Your task to perform on an android device: open a new tab in the chrome app Image 0: 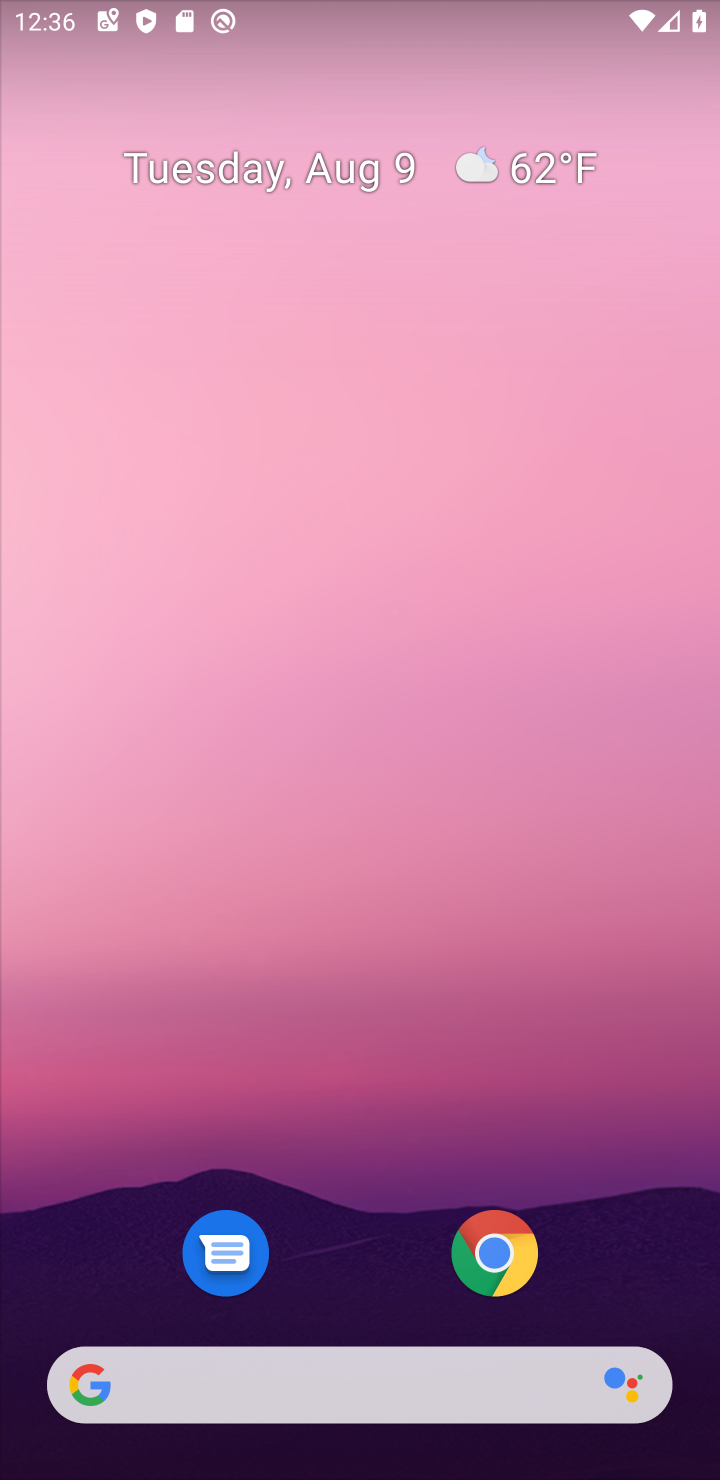
Step 0: drag from (663, 1213) to (335, 25)
Your task to perform on an android device: open a new tab in the chrome app Image 1: 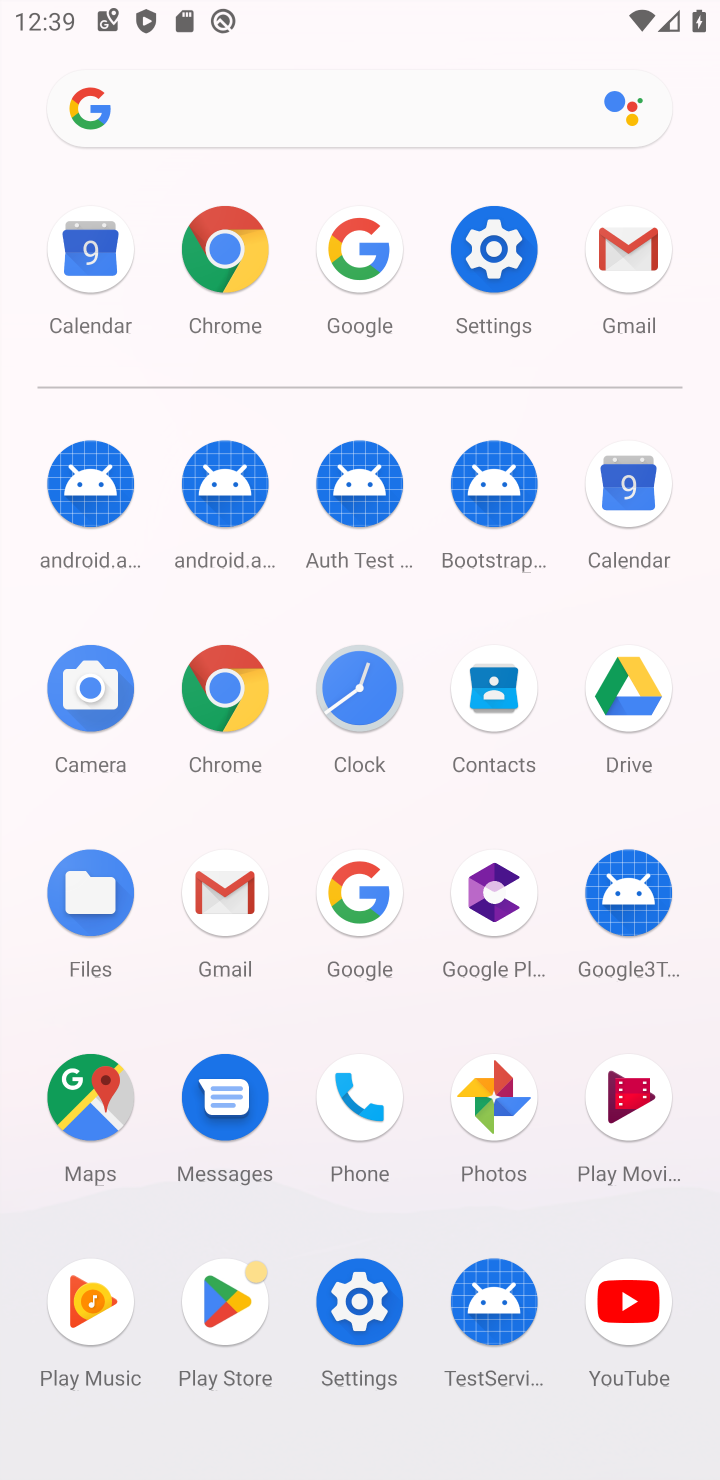
Step 1: click (238, 269)
Your task to perform on an android device: open a new tab in the chrome app Image 2: 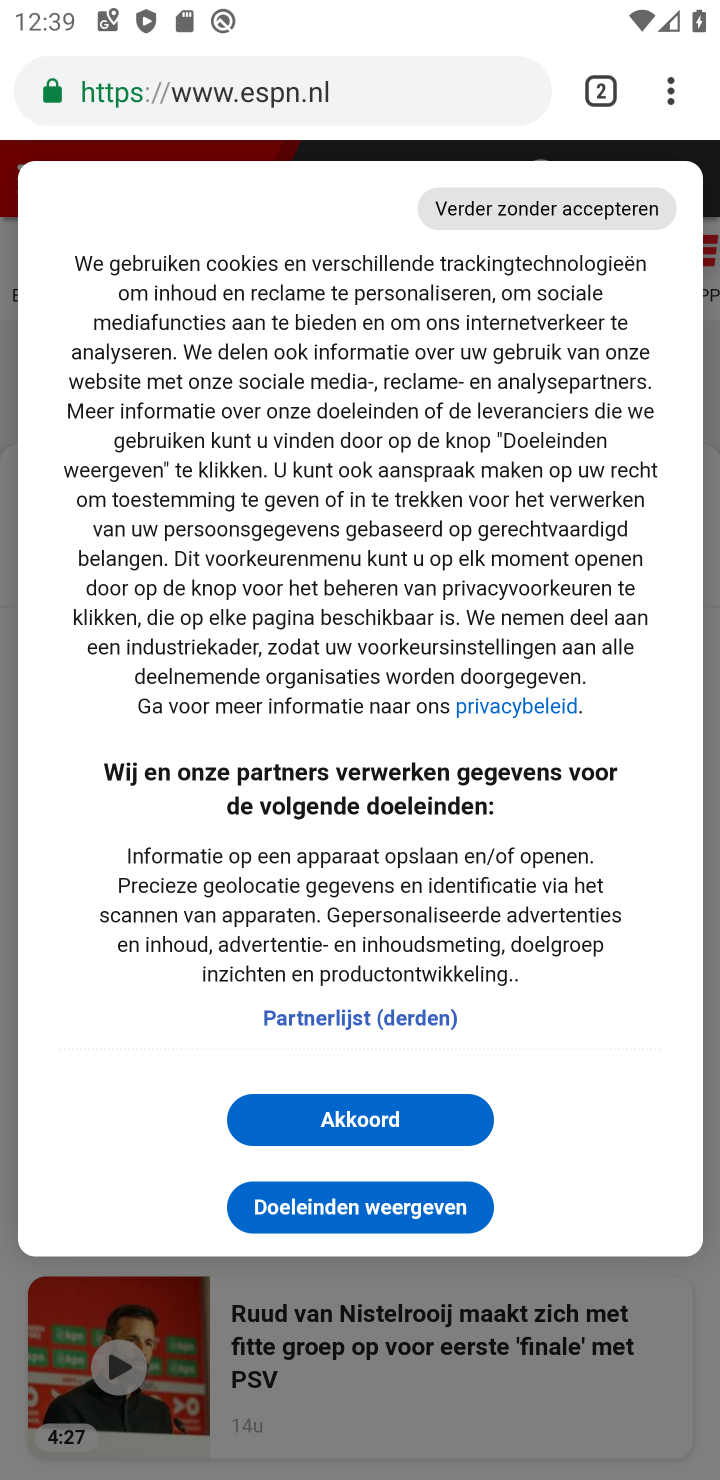
Step 2: click (663, 85)
Your task to perform on an android device: open a new tab in the chrome app Image 3: 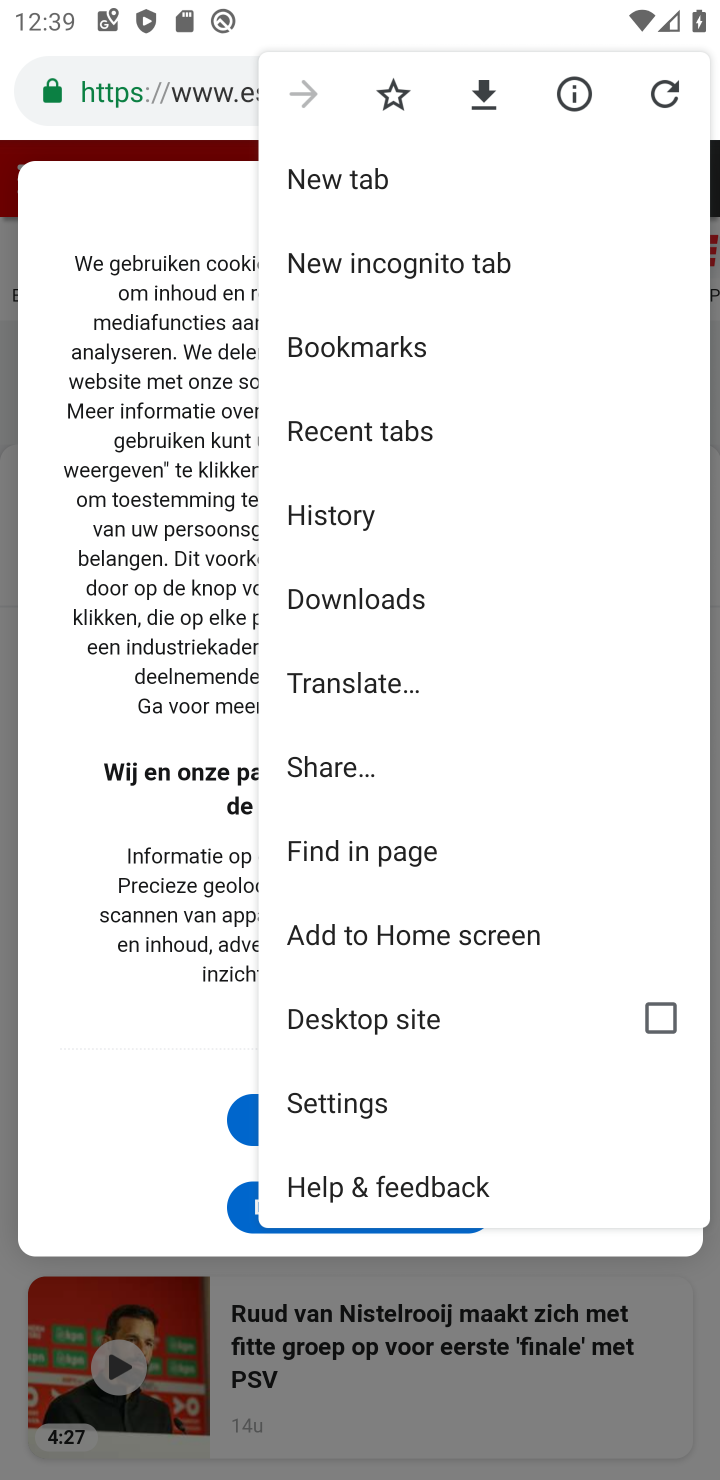
Step 3: click (402, 199)
Your task to perform on an android device: open a new tab in the chrome app Image 4: 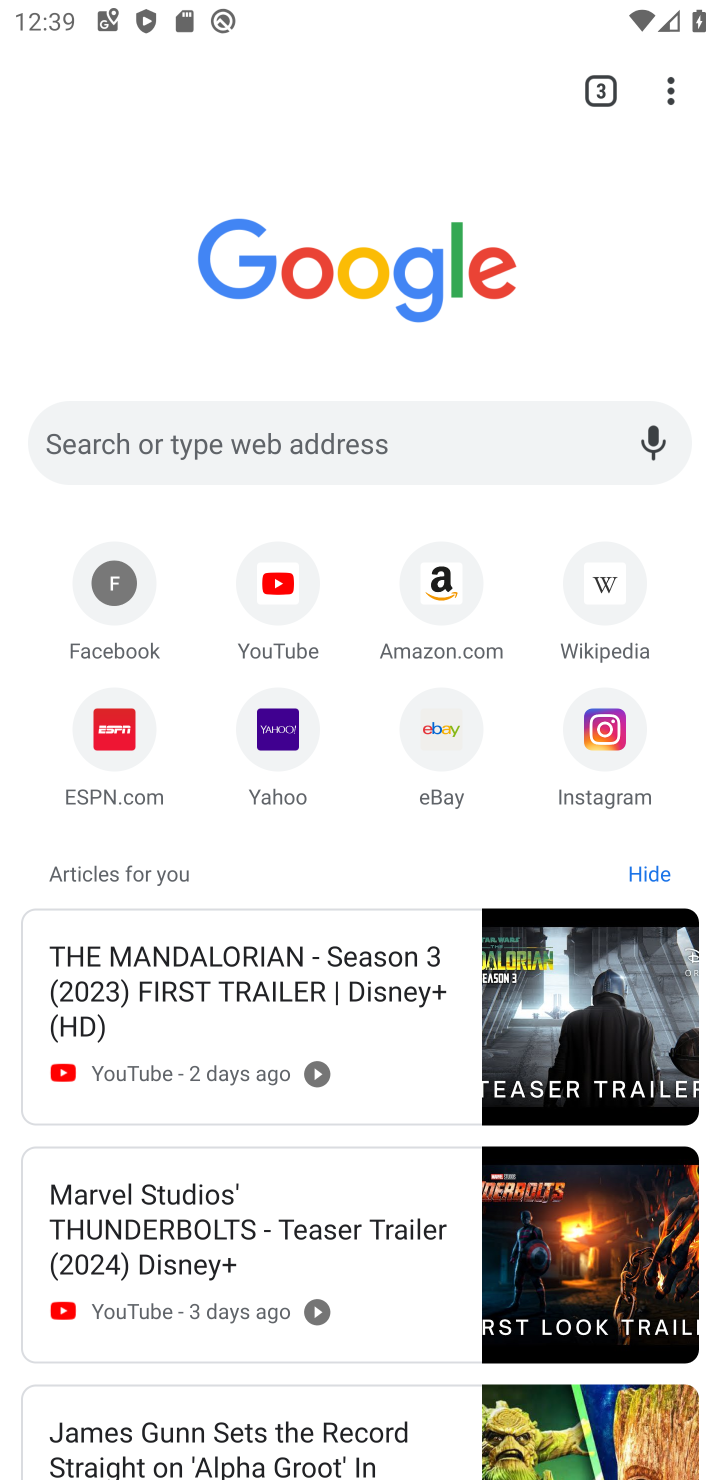
Step 4: task complete